Your task to perform on an android device: Search for the best rated headphones on Amazon Image 0: 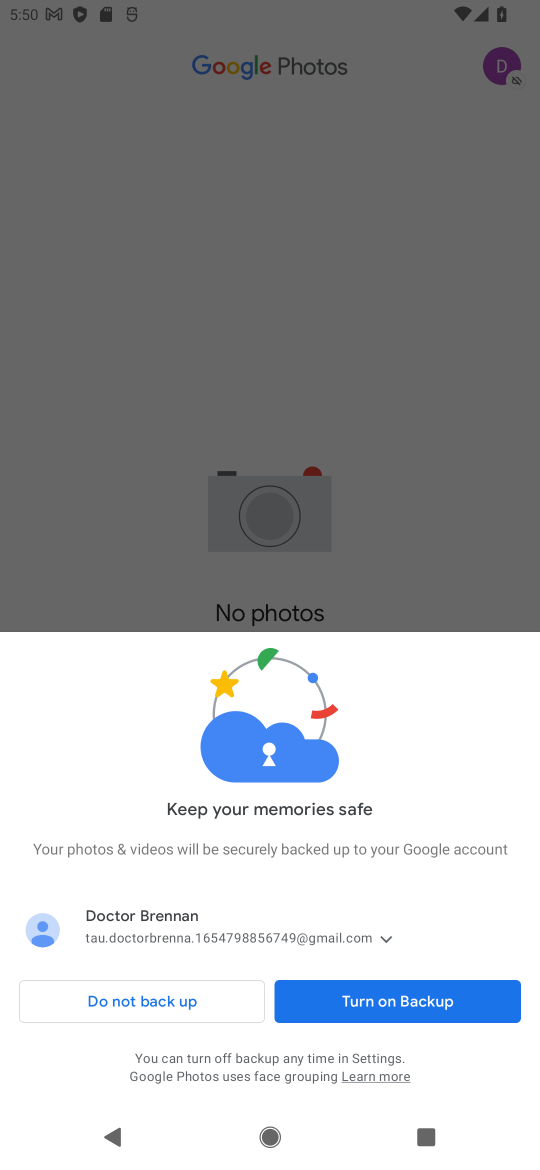
Step 0: press home button
Your task to perform on an android device: Search for the best rated headphones on Amazon Image 1: 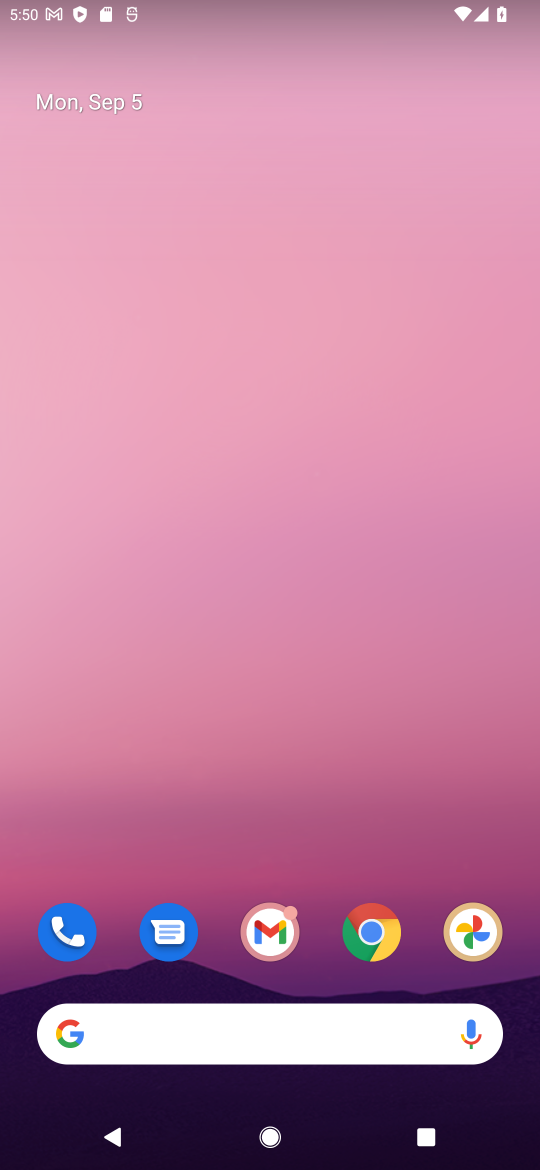
Step 1: drag from (252, 998) to (223, 81)
Your task to perform on an android device: Search for the best rated headphones on Amazon Image 2: 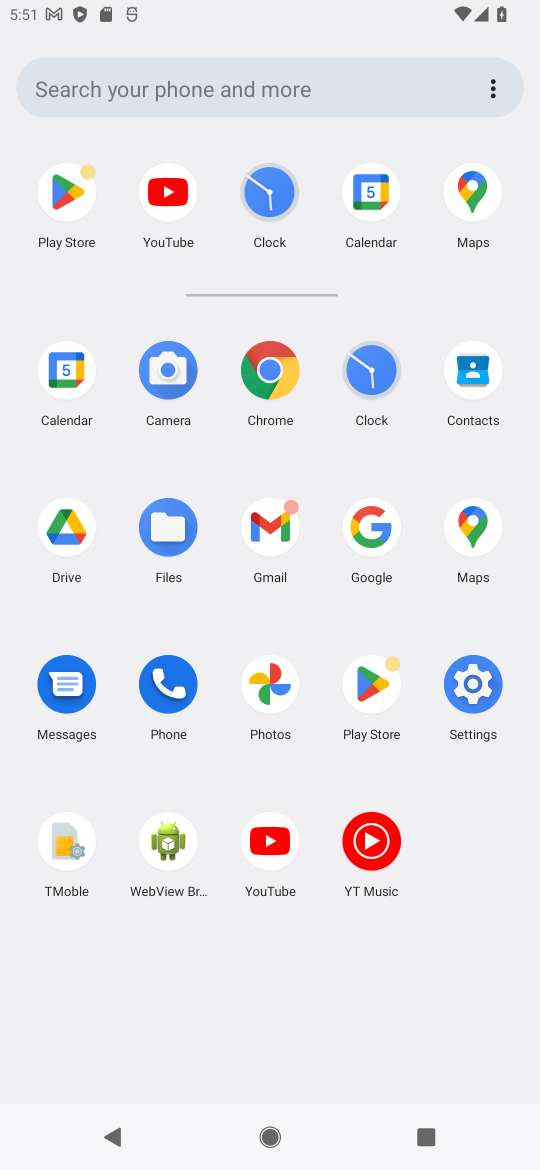
Step 2: click (276, 370)
Your task to perform on an android device: Search for the best rated headphones on Amazon Image 3: 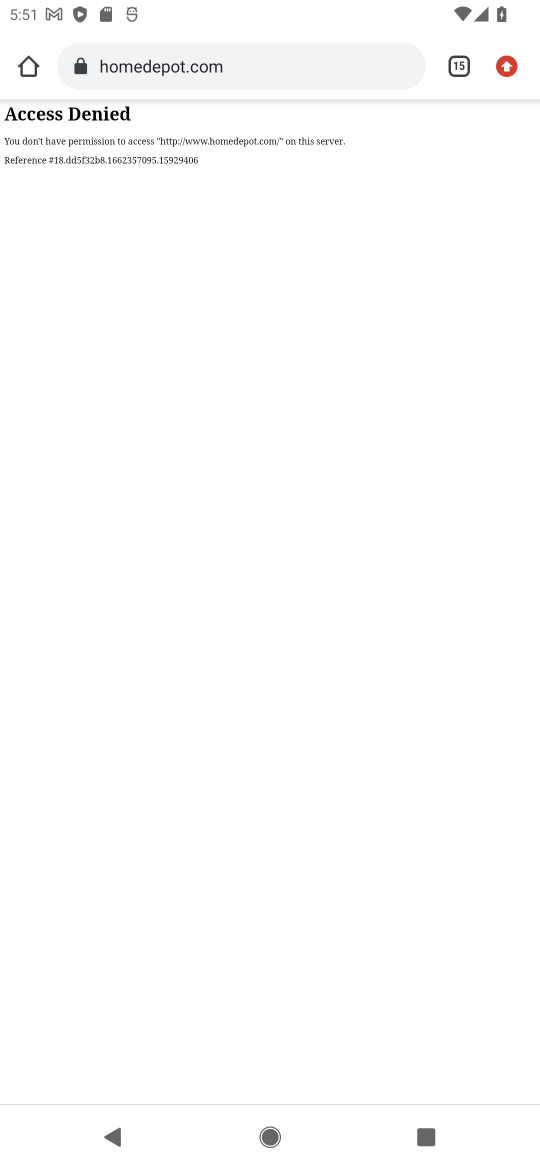
Step 3: click (510, 67)
Your task to perform on an android device: Search for the best rated headphones on Amazon Image 4: 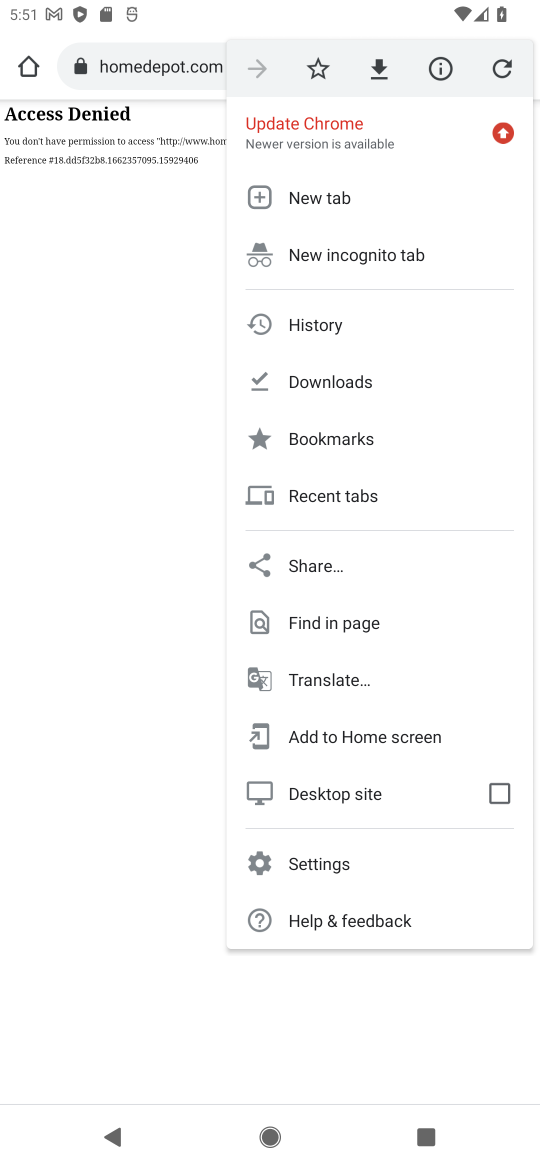
Step 4: click (314, 198)
Your task to perform on an android device: Search for the best rated headphones on Amazon Image 5: 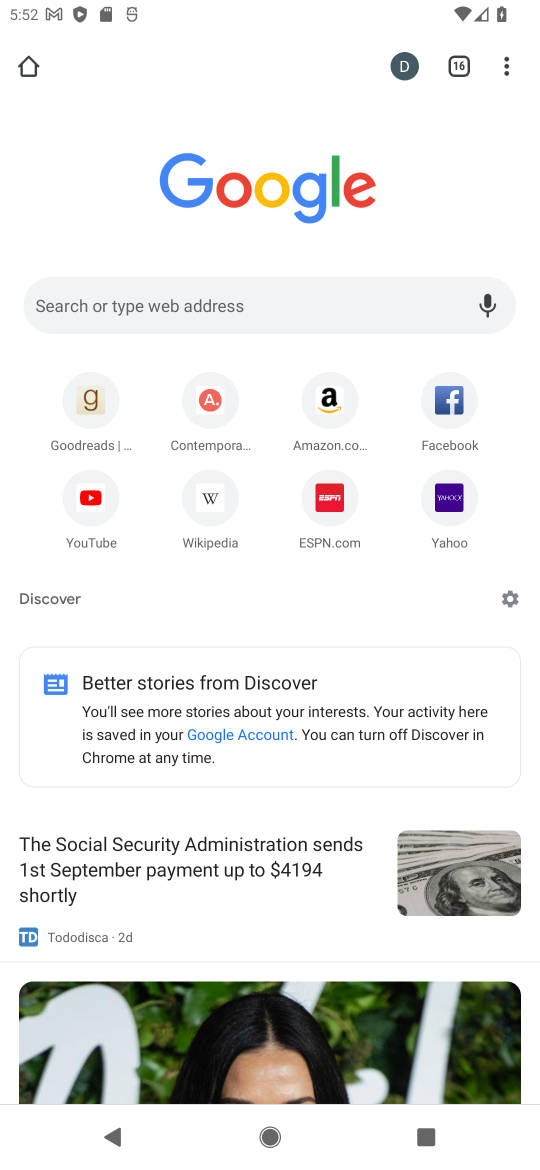
Step 5: click (325, 388)
Your task to perform on an android device: Search for the best rated headphones on Amazon Image 6: 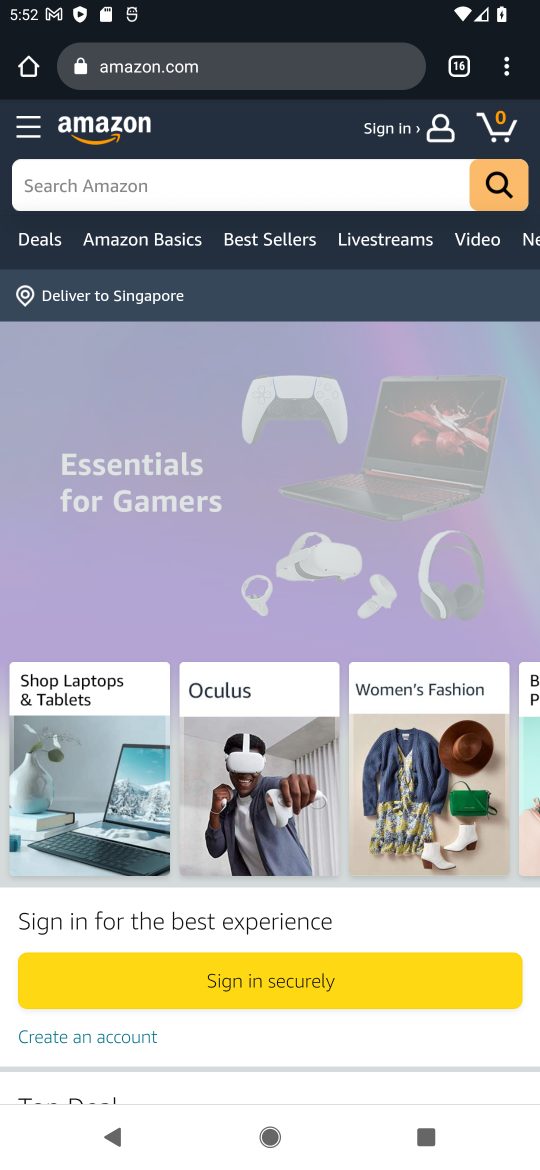
Step 6: click (278, 201)
Your task to perform on an android device: Search for the best rated headphones on Amazon Image 7: 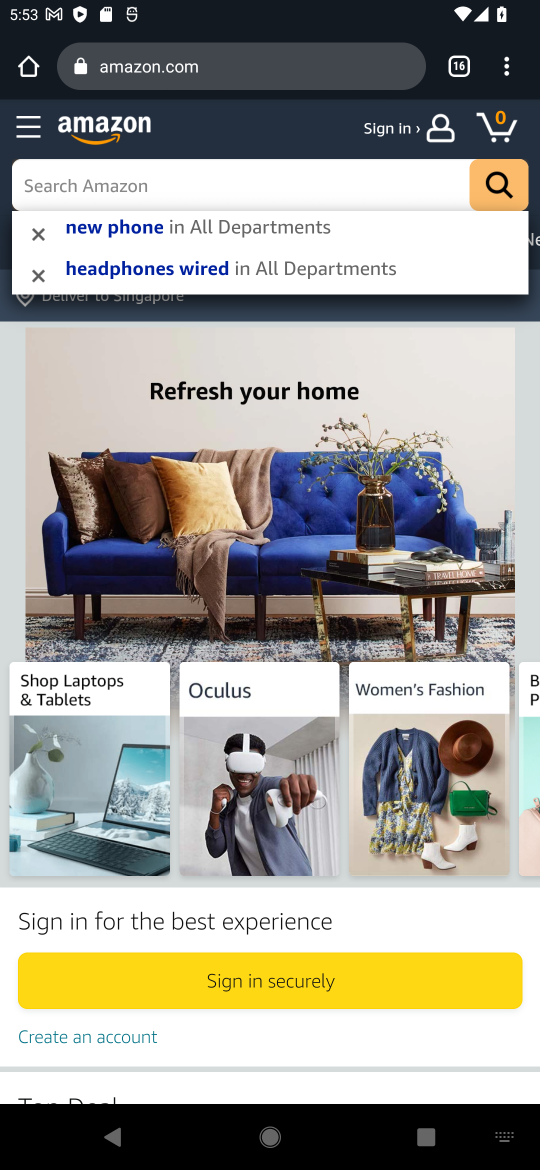
Step 7: type "headphones"
Your task to perform on an android device: Search for the best rated headphones on Amazon Image 8: 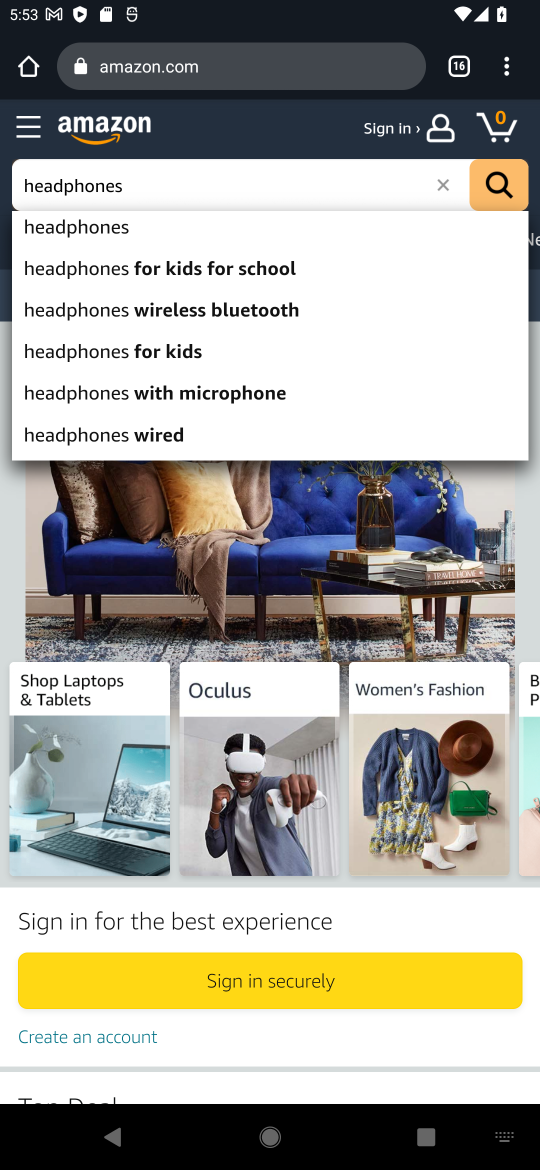
Step 8: click (121, 223)
Your task to perform on an android device: Search for the best rated headphones on Amazon Image 9: 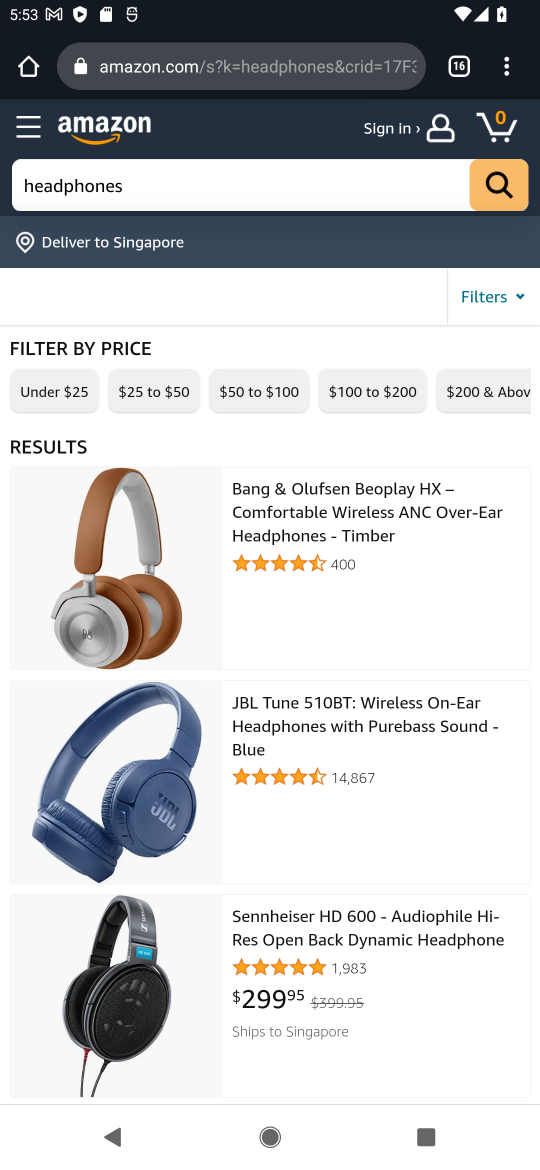
Step 9: task complete